Your task to perform on an android device: turn on sleep mode Image 0: 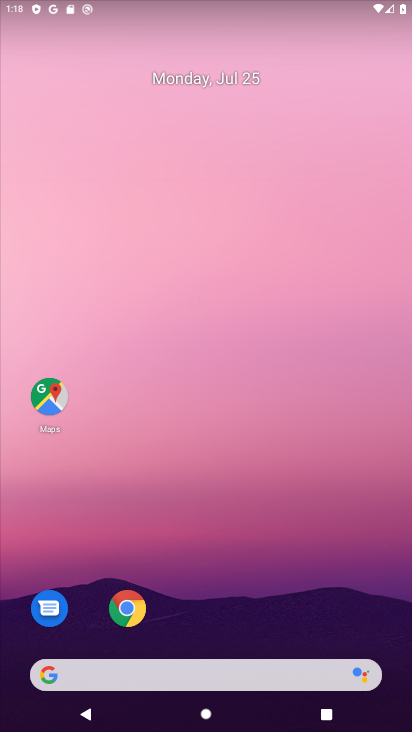
Step 0: drag from (218, 675) to (220, 198)
Your task to perform on an android device: turn on sleep mode Image 1: 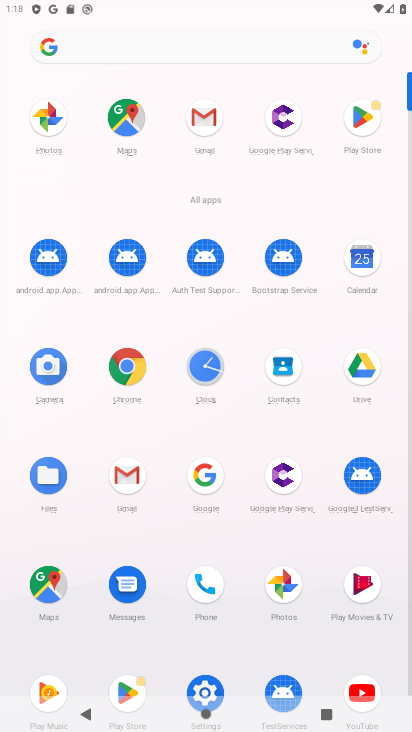
Step 1: click (205, 691)
Your task to perform on an android device: turn on sleep mode Image 2: 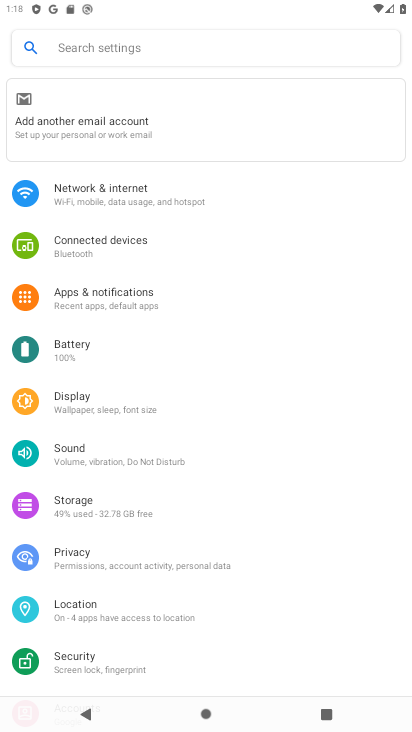
Step 2: click (121, 306)
Your task to perform on an android device: turn on sleep mode Image 3: 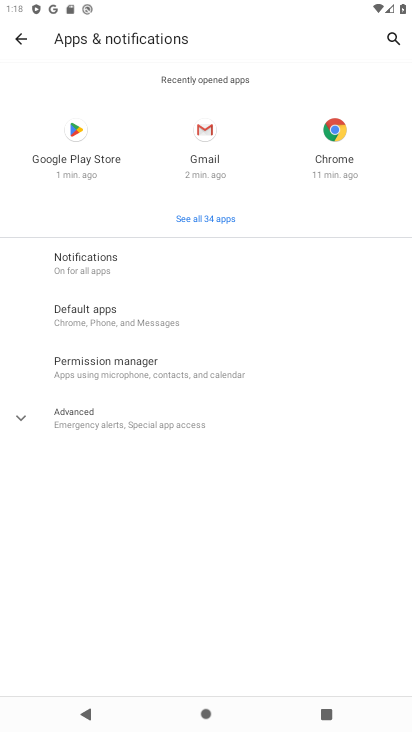
Step 3: press back button
Your task to perform on an android device: turn on sleep mode Image 4: 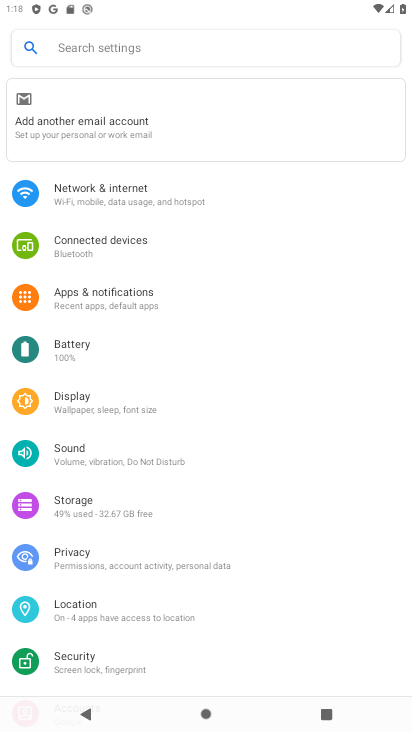
Step 4: click (89, 402)
Your task to perform on an android device: turn on sleep mode Image 5: 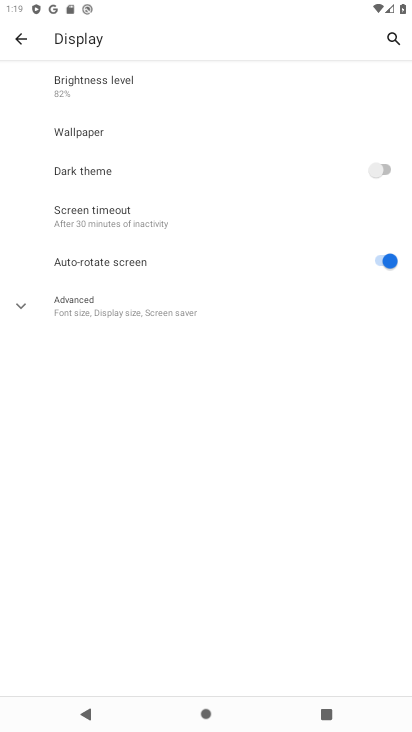
Step 5: click (111, 224)
Your task to perform on an android device: turn on sleep mode Image 6: 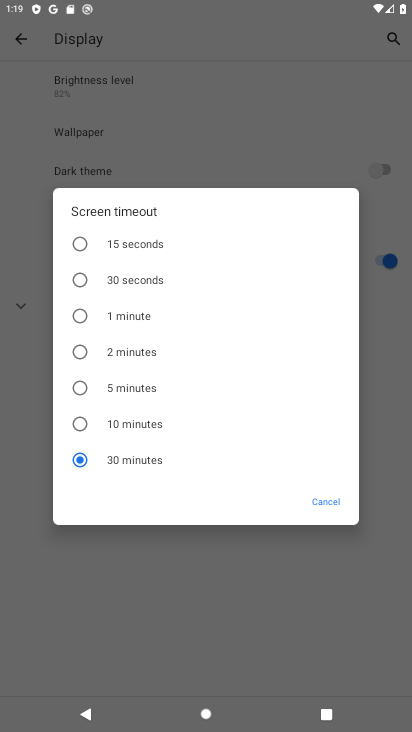
Step 6: click (325, 500)
Your task to perform on an android device: turn on sleep mode Image 7: 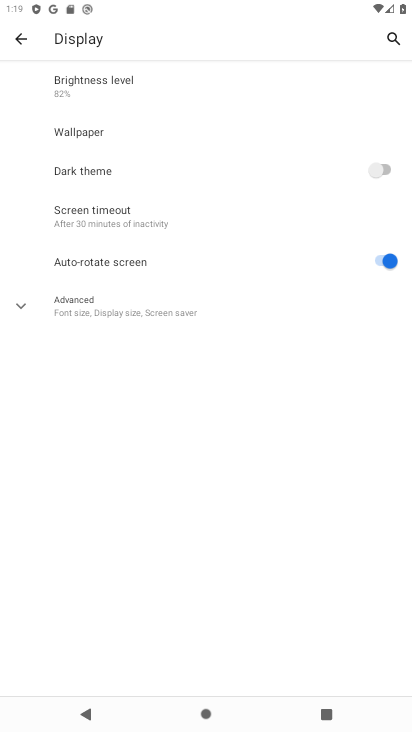
Step 7: click (97, 310)
Your task to perform on an android device: turn on sleep mode Image 8: 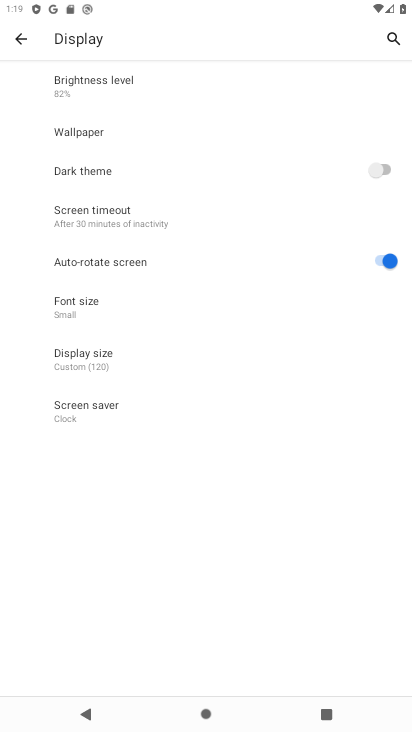
Step 8: task complete